Your task to perform on an android device: Search for sushi restaurants on Maps Image 0: 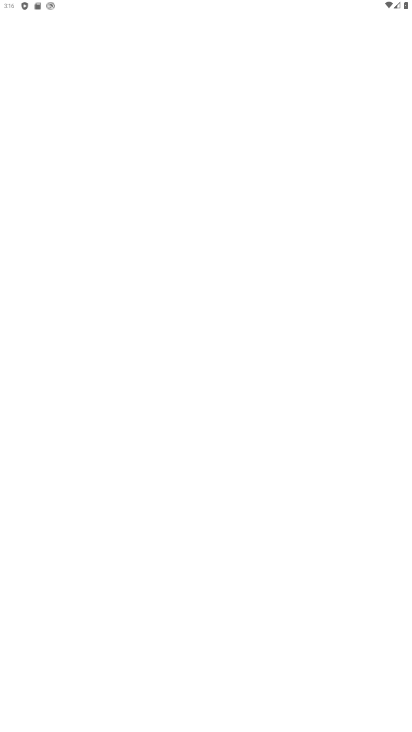
Step 0: drag from (237, 704) to (227, 373)
Your task to perform on an android device: Search for sushi restaurants on Maps Image 1: 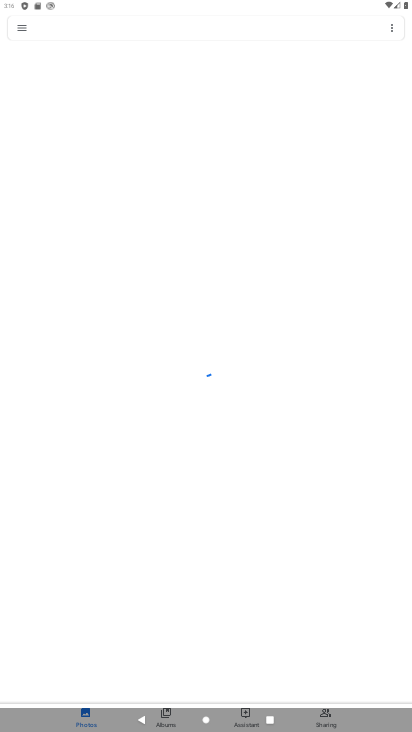
Step 1: press home button
Your task to perform on an android device: Search for sushi restaurants on Maps Image 2: 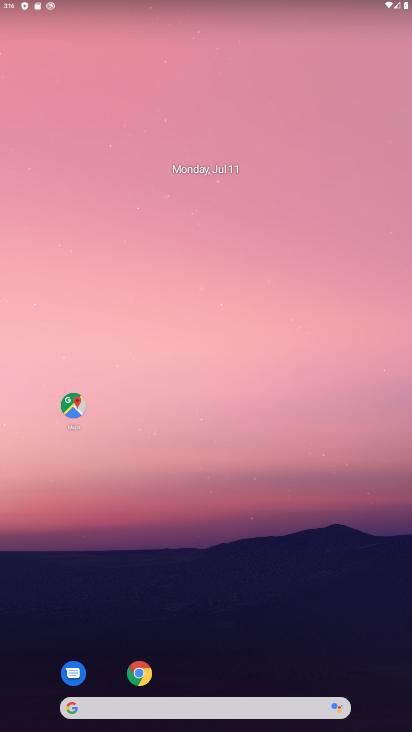
Step 2: drag from (200, 694) to (199, 264)
Your task to perform on an android device: Search for sushi restaurants on Maps Image 3: 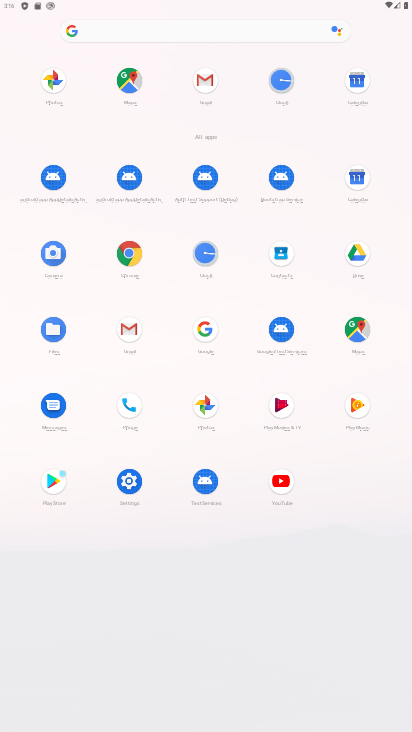
Step 3: click (358, 337)
Your task to perform on an android device: Search for sushi restaurants on Maps Image 4: 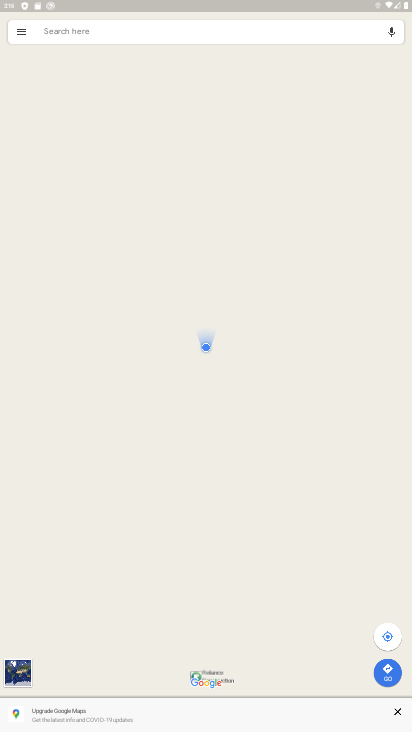
Step 4: click (126, 30)
Your task to perform on an android device: Search for sushi restaurants on Maps Image 5: 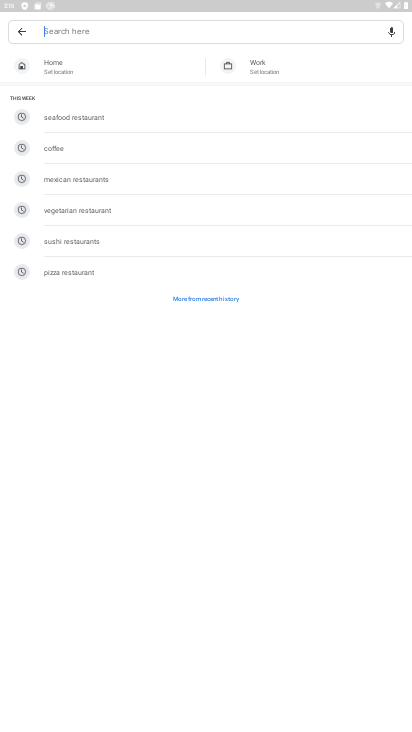
Step 5: click (84, 242)
Your task to perform on an android device: Search for sushi restaurants on Maps Image 6: 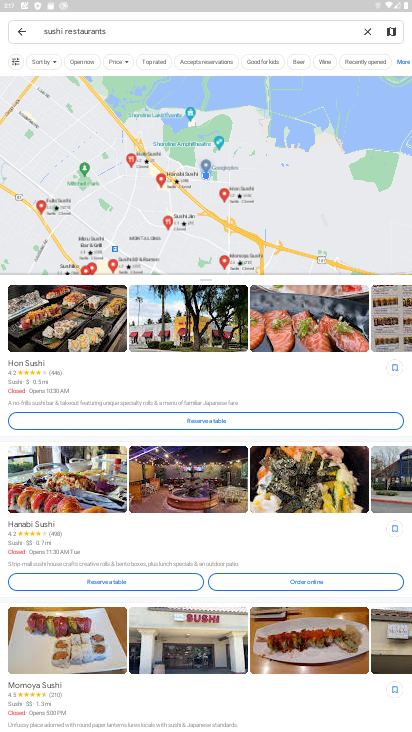
Step 6: task complete